Your task to perform on an android device: Go to accessibility settings Image 0: 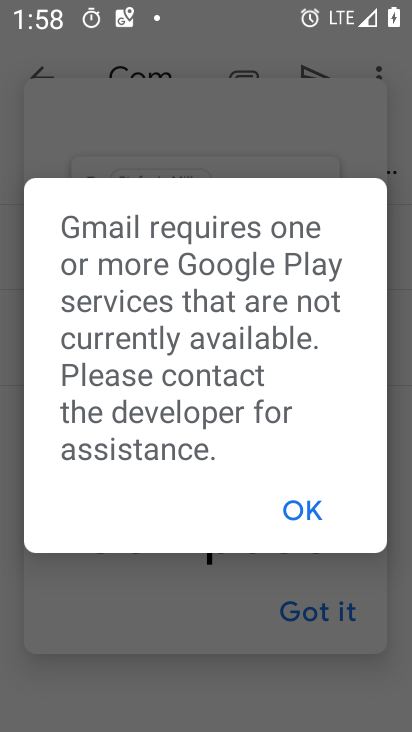
Step 0: press home button
Your task to perform on an android device: Go to accessibility settings Image 1: 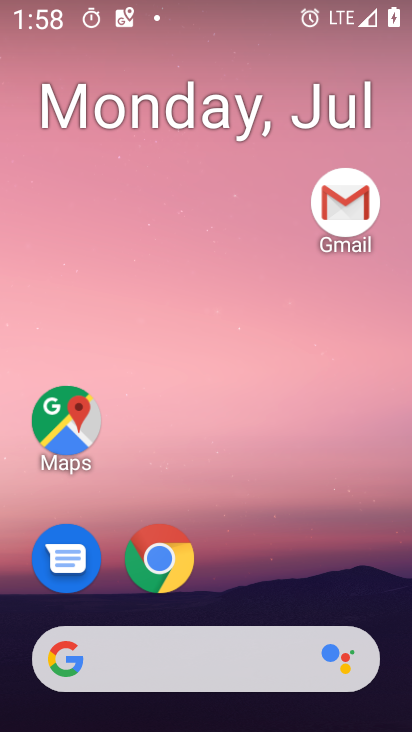
Step 1: drag from (369, 563) to (392, 152)
Your task to perform on an android device: Go to accessibility settings Image 2: 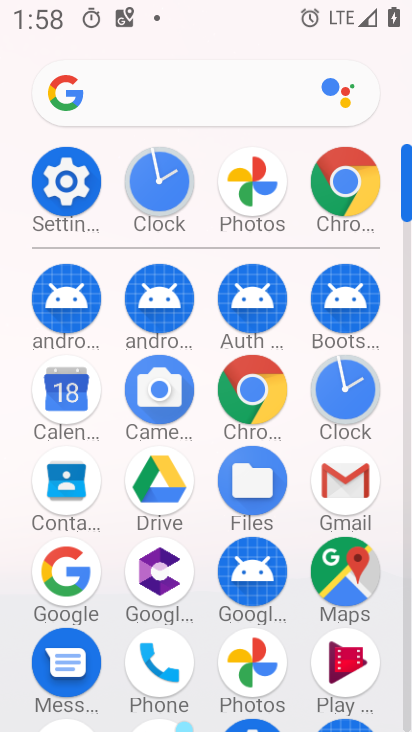
Step 2: click (77, 191)
Your task to perform on an android device: Go to accessibility settings Image 3: 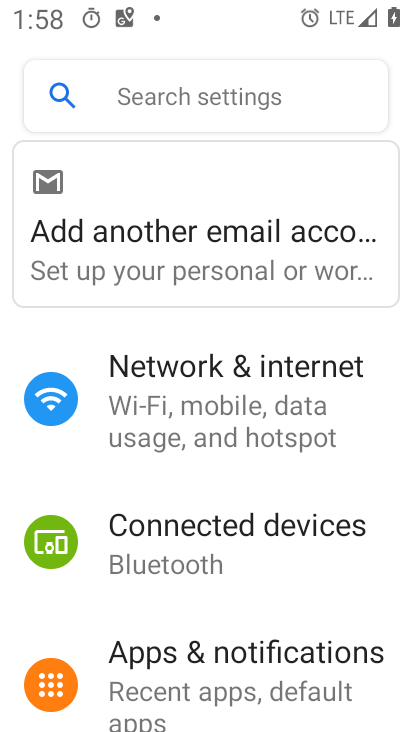
Step 3: drag from (357, 456) to (362, 365)
Your task to perform on an android device: Go to accessibility settings Image 4: 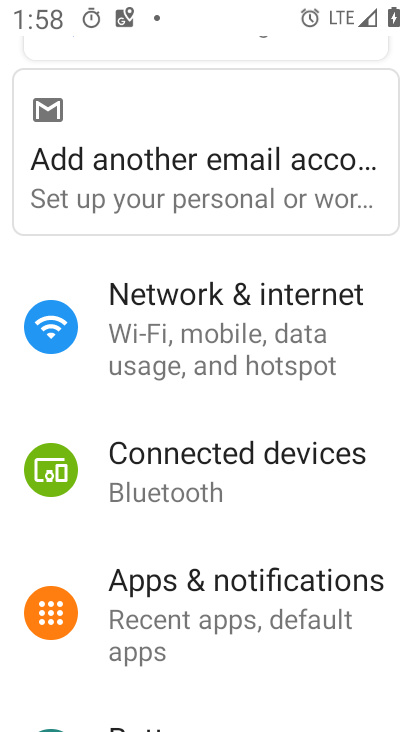
Step 4: drag from (372, 475) to (371, 384)
Your task to perform on an android device: Go to accessibility settings Image 5: 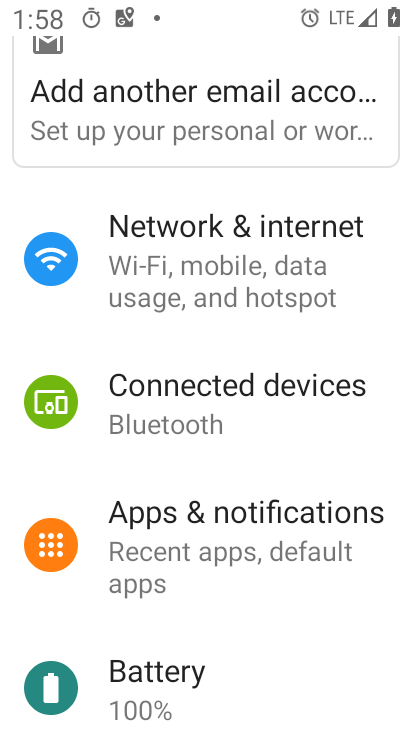
Step 5: drag from (361, 448) to (368, 354)
Your task to perform on an android device: Go to accessibility settings Image 6: 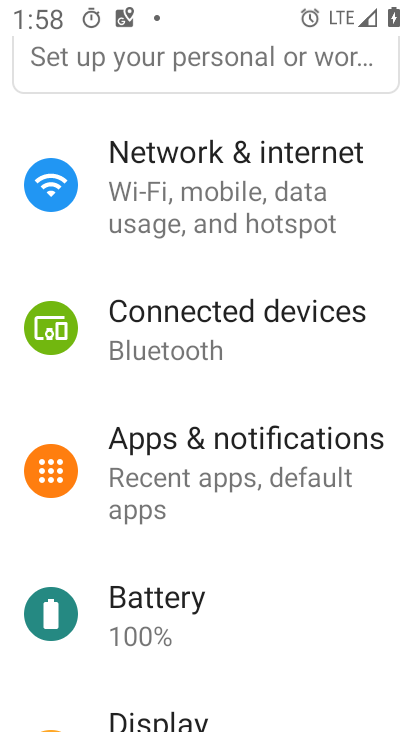
Step 6: drag from (350, 552) to (349, 460)
Your task to perform on an android device: Go to accessibility settings Image 7: 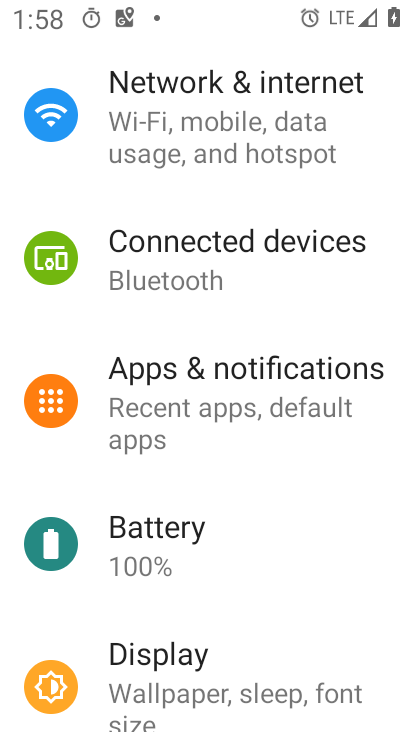
Step 7: drag from (315, 582) to (327, 510)
Your task to perform on an android device: Go to accessibility settings Image 8: 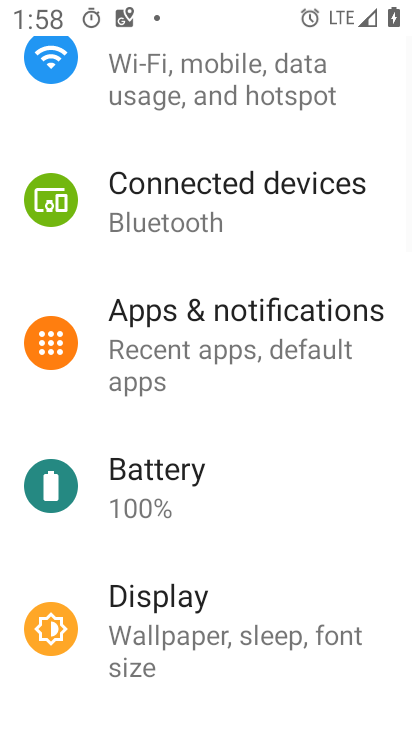
Step 8: drag from (348, 670) to (358, 552)
Your task to perform on an android device: Go to accessibility settings Image 9: 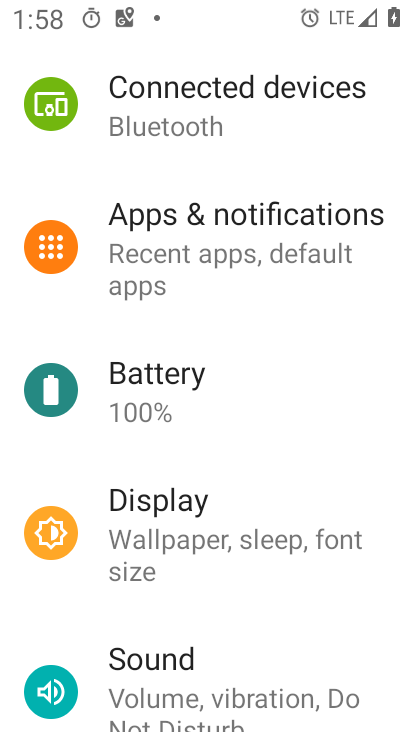
Step 9: drag from (353, 632) to (362, 538)
Your task to perform on an android device: Go to accessibility settings Image 10: 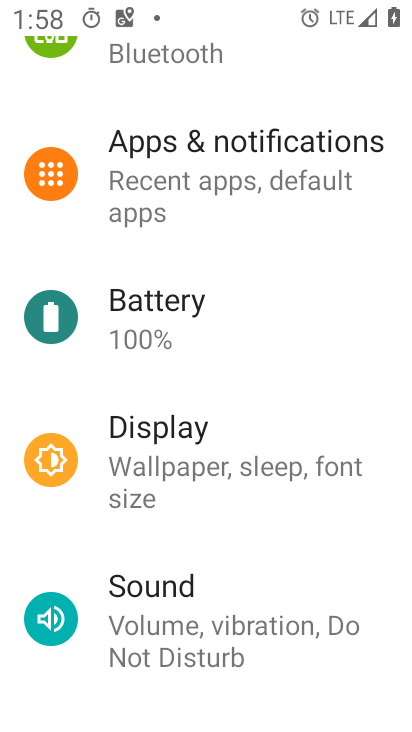
Step 10: drag from (355, 664) to (362, 561)
Your task to perform on an android device: Go to accessibility settings Image 11: 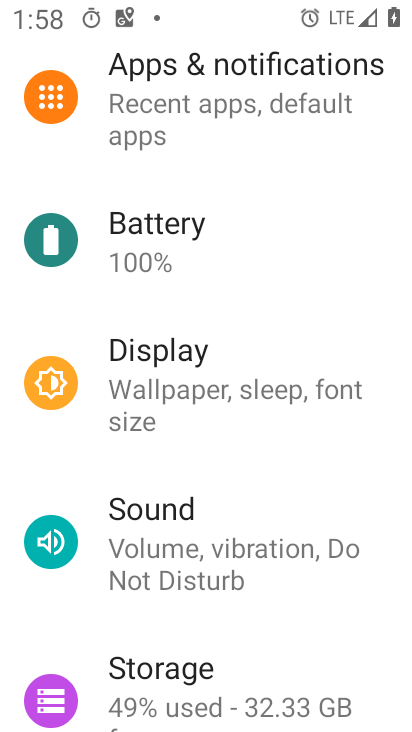
Step 11: drag from (347, 634) to (349, 545)
Your task to perform on an android device: Go to accessibility settings Image 12: 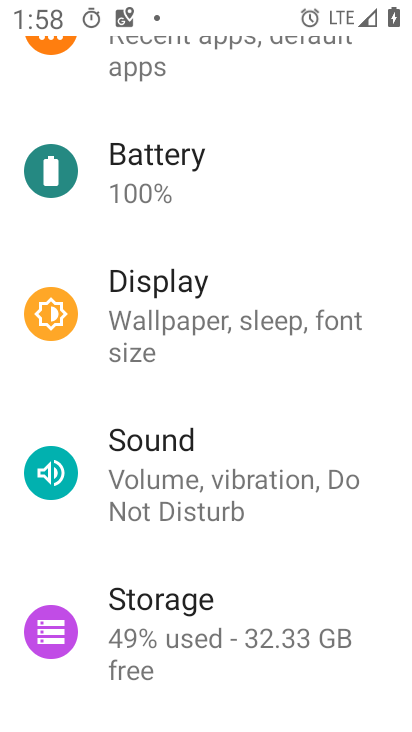
Step 12: drag from (336, 670) to (342, 544)
Your task to perform on an android device: Go to accessibility settings Image 13: 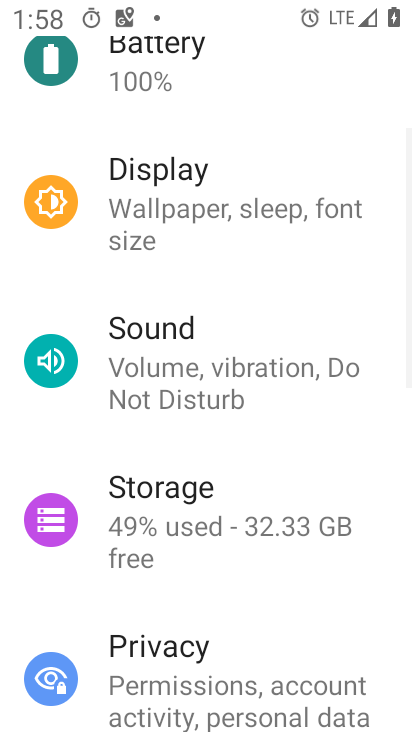
Step 13: drag from (327, 638) to (327, 532)
Your task to perform on an android device: Go to accessibility settings Image 14: 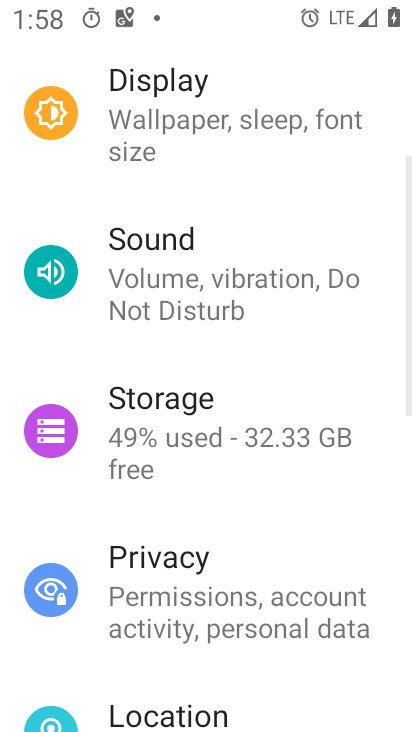
Step 14: drag from (313, 671) to (320, 524)
Your task to perform on an android device: Go to accessibility settings Image 15: 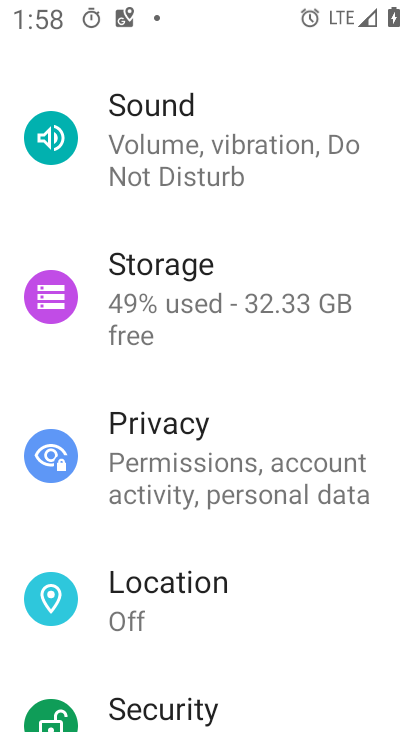
Step 15: drag from (328, 590) to (335, 487)
Your task to perform on an android device: Go to accessibility settings Image 16: 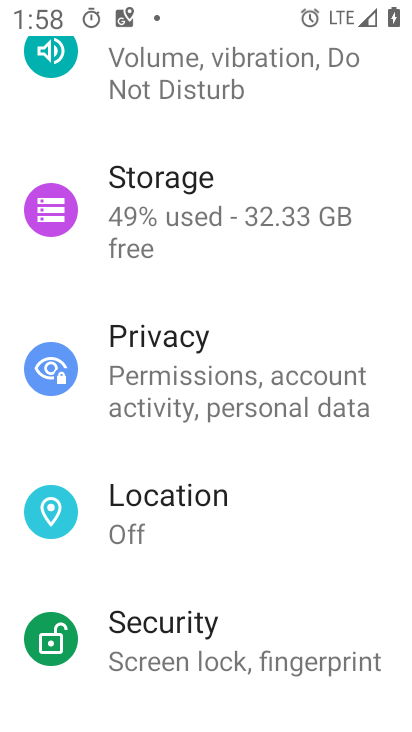
Step 16: drag from (324, 567) to (323, 444)
Your task to perform on an android device: Go to accessibility settings Image 17: 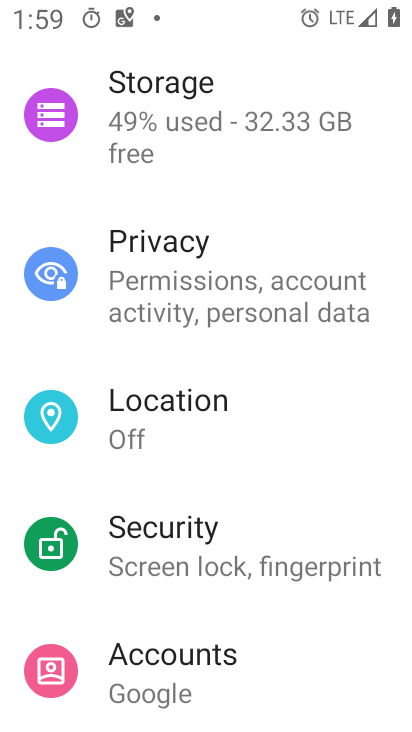
Step 17: drag from (320, 613) to (325, 484)
Your task to perform on an android device: Go to accessibility settings Image 18: 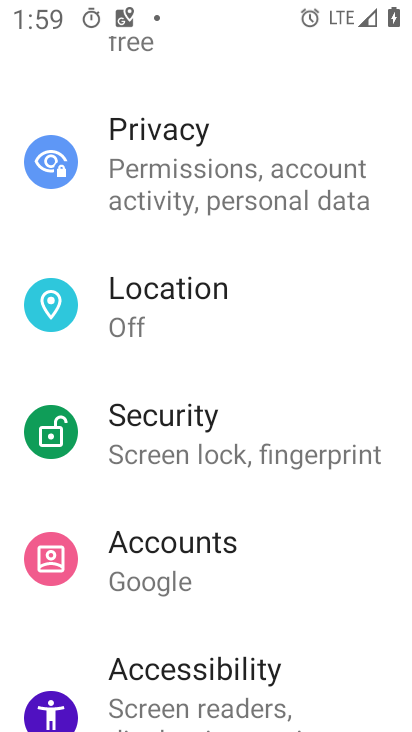
Step 18: drag from (326, 611) to (326, 454)
Your task to perform on an android device: Go to accessibility settings Image 19: 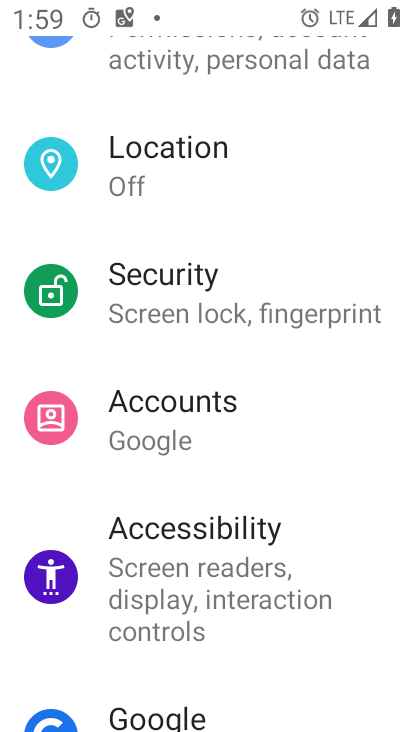
Step 19: click (324, 570)
Your task to perform on an android device: Go to accessibility settings Image 20: 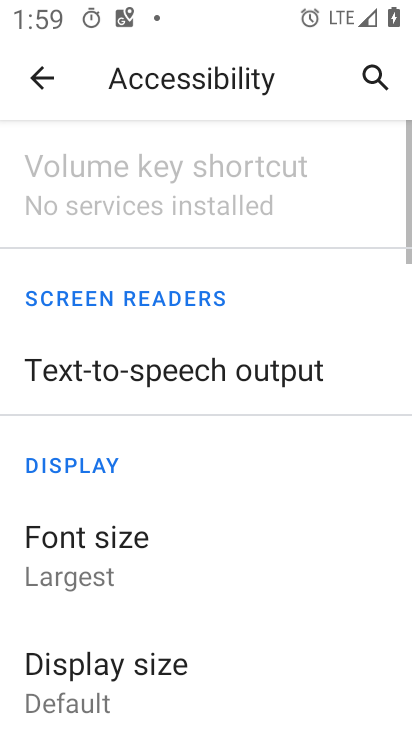
Step 20: task complete